Your task to perform on an android device: Open accessibility settings Image 0: 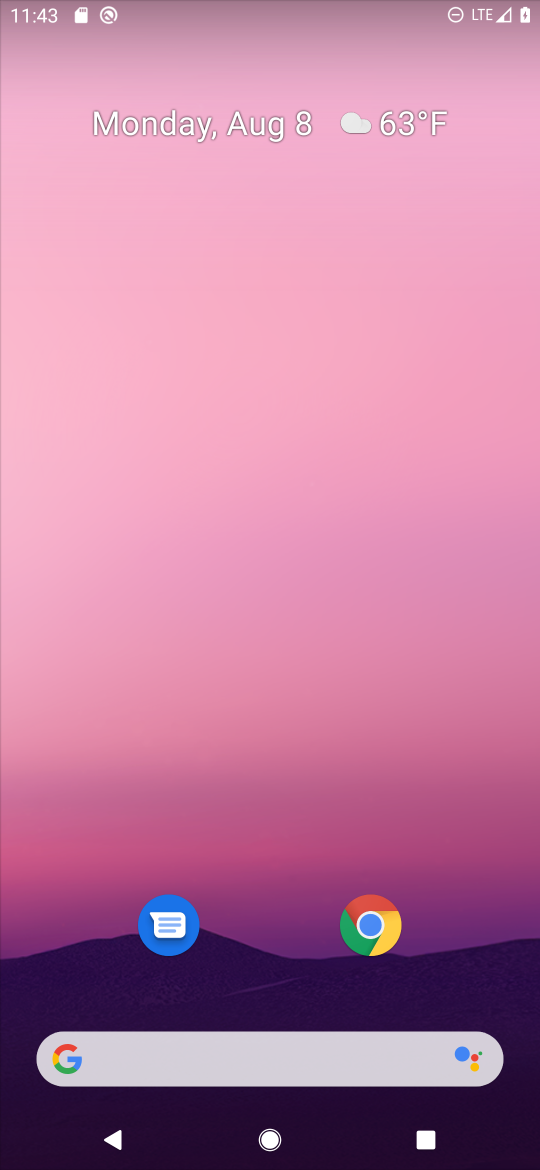
Step 0: drag from (240, 841) to (349, 8)
Your task to perform on an android device: Open accessibility settings Image 1: 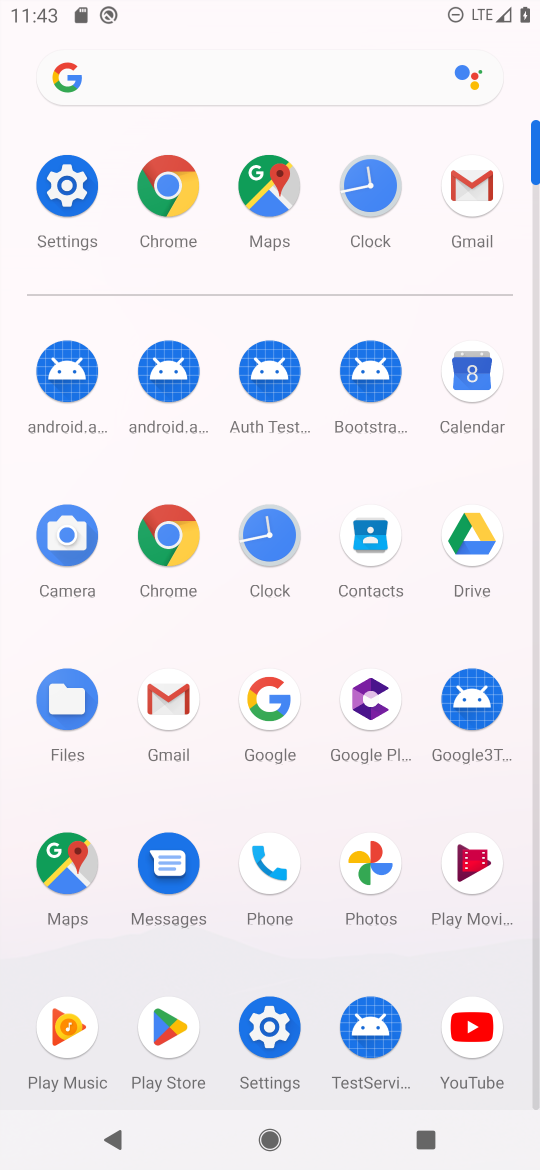
Step 1: click (278, 1011)
Your task to perform on an android device: Open accessibility settings Image 2: 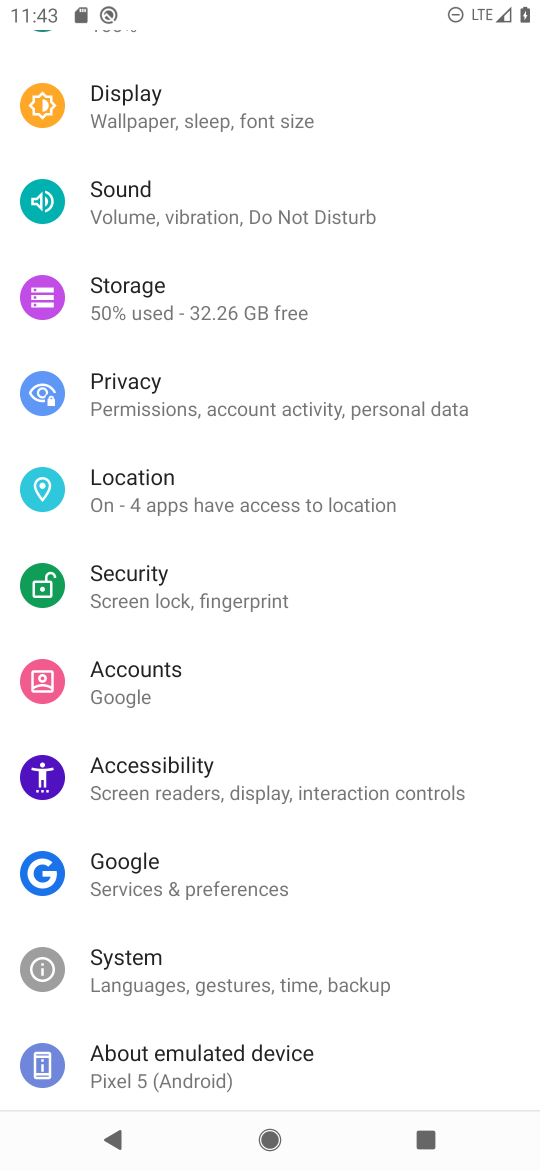
Step 2: click (263, 1026)
Your task to perform on an android device: Open accessibility settings Image 3: 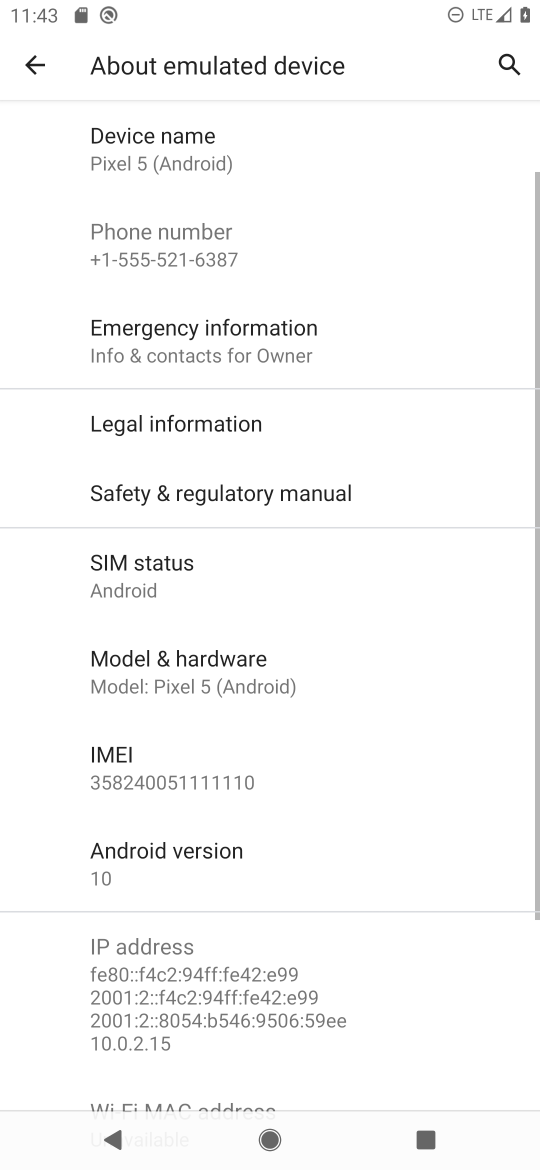
Step 3: click (41, 60)
Your task to perform on an android device: Open accessibility settings Image 4: 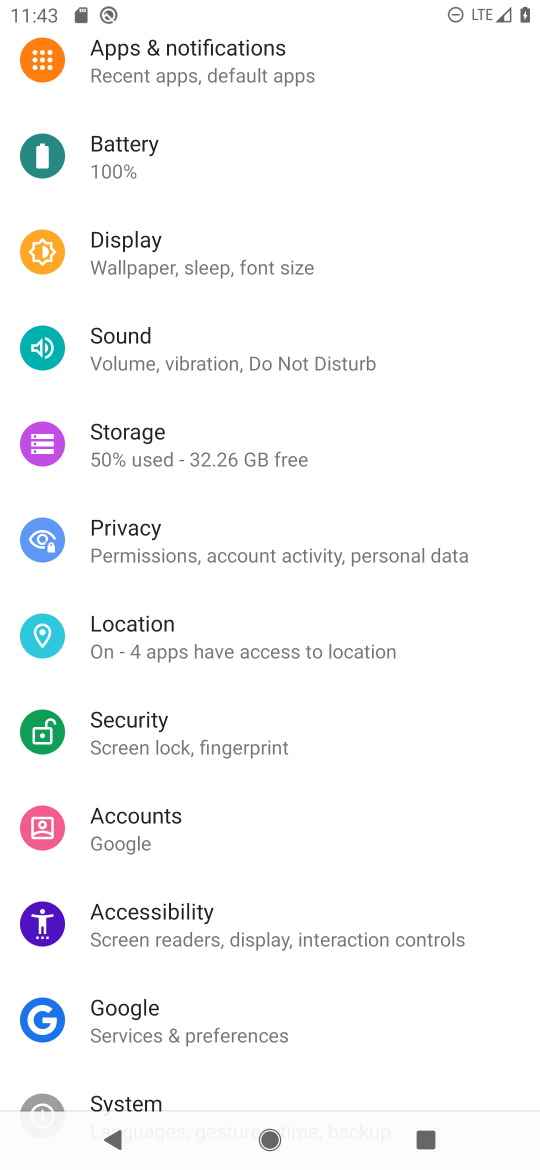
Step 4: click (157, 902)
Your task to perform on an android device: Open accessibility settings Image 5: 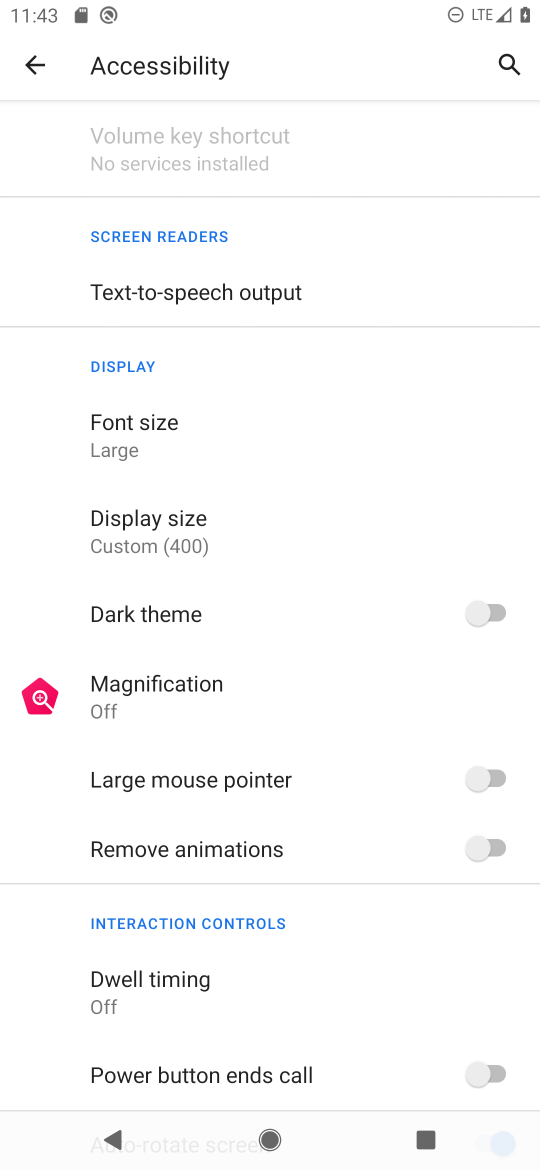
Step 5: task complete